Your task to perform on an android device: What's the weather today? Image 0: 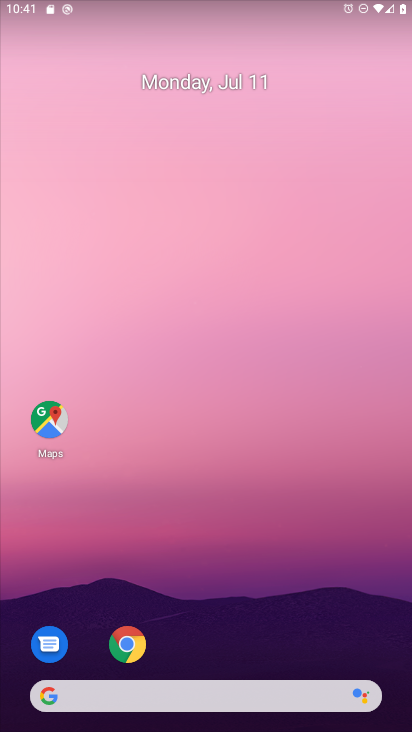
Step 0: drag from (180, 668) to (181, 347)
Your task to perform on an android device: What's the weather today? Image 1: 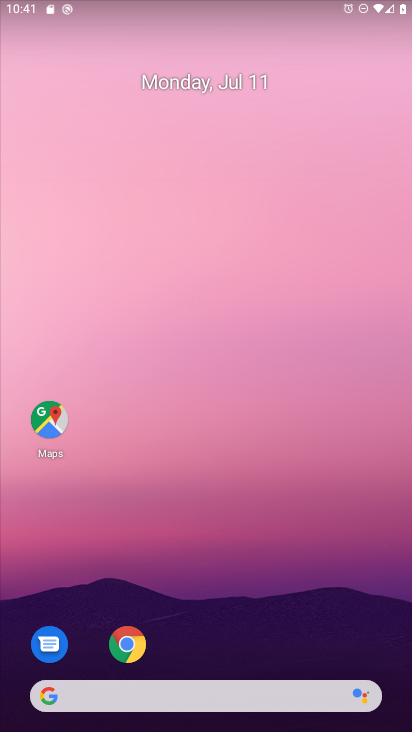
Step 1: drag from (175, 674) to (156, 292)
Your task to perform on an android device: What's the weather today? Image 2: 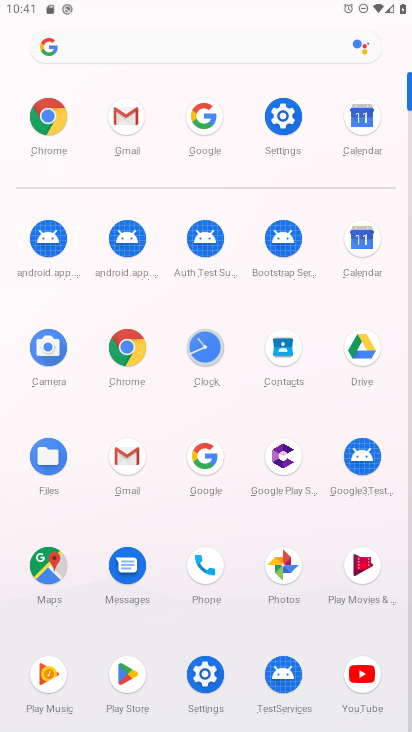
Step 2: click (202, 114)
Your task to perform on an android device: What's the weather today? Image 3: 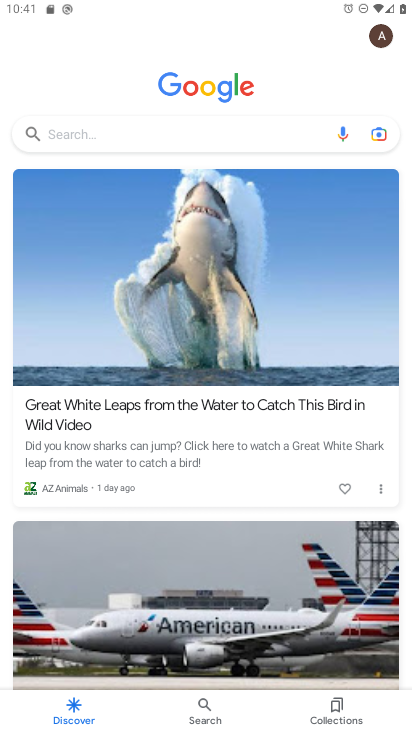
Step 3: click (117, 131)
Your task to perform on an android device: What's the weather today? Image 4: 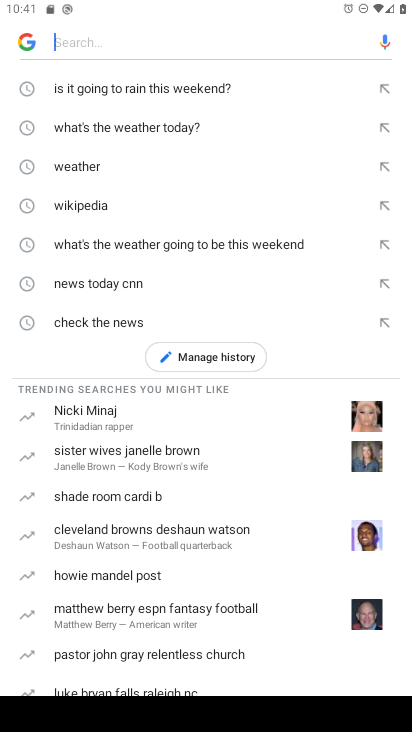
Step 4: click (73, 159)
Your task to perform on an android device: What's the weather today? Image 5: 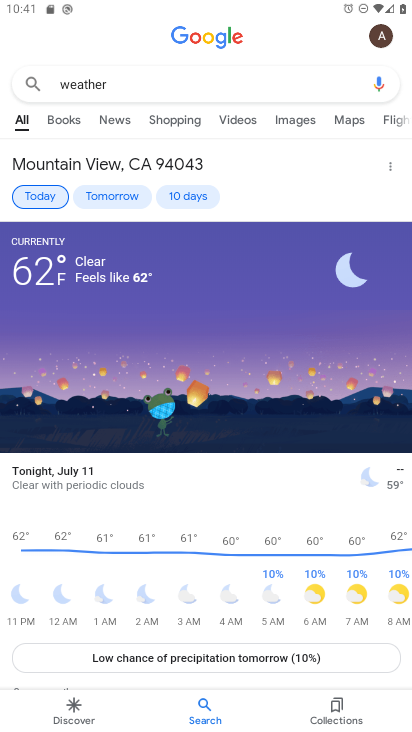
Step 5: task complete